Your task to perform on an android device: Open Google Maps Image 0: 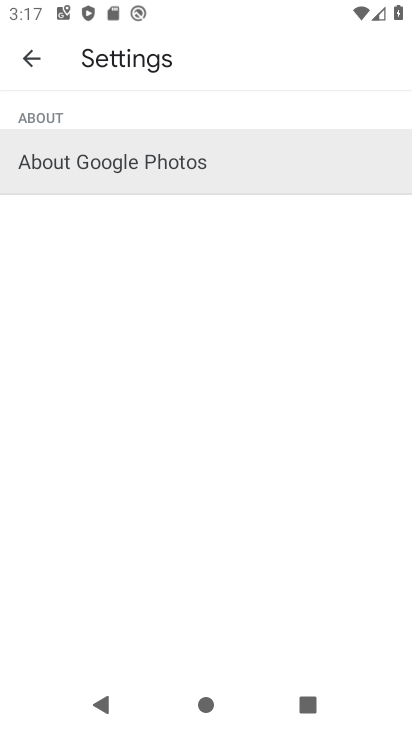
Step 0: press home button
Your task to perform on an android device: Open Google Maps Image 1: 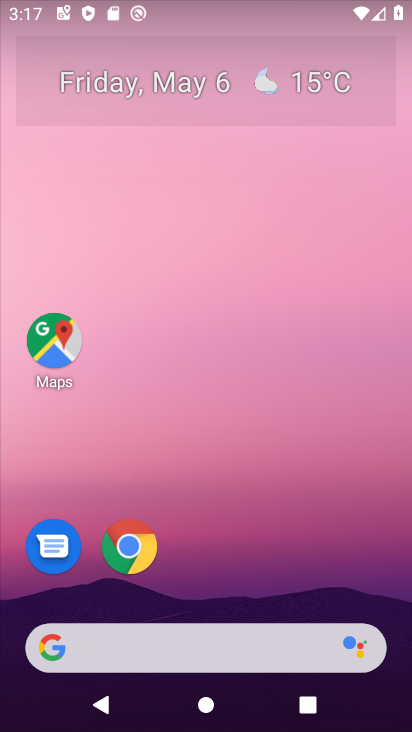
Step 1: click (36, 336)
Your task to perform on an android device: Open Google Maps Image 2: 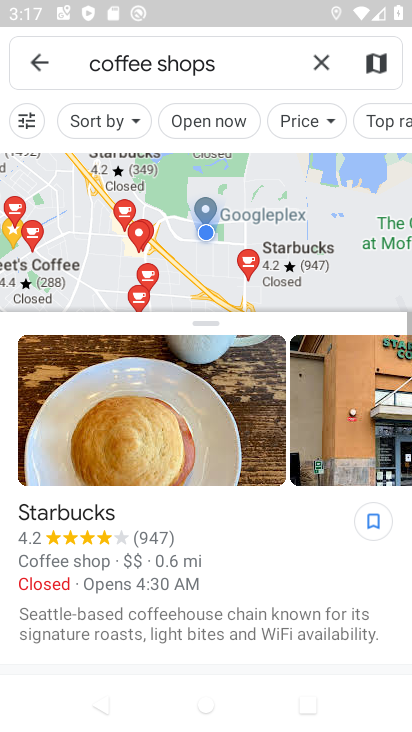
Step 2: click (322, 75)
Your task to perform on an android device: Open Google Maps Image 3: 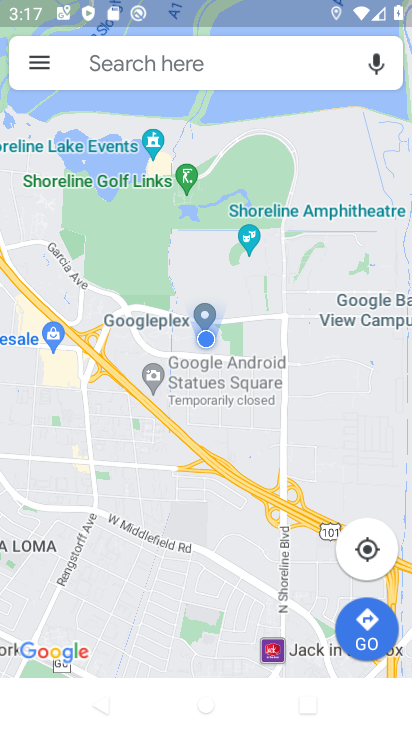
Step 3: task complete